Your task to perform on an android device: Open the phone app and click the voicemail tab. Image 0: 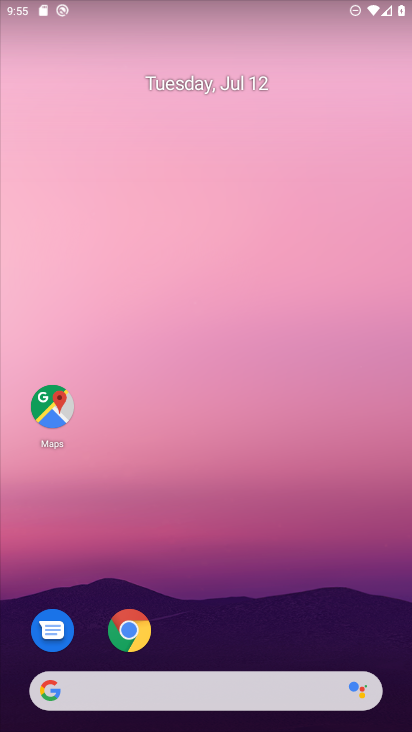
Step 0: drag from (197, 666) to (175, 285)
Your task to perform on an android device: Open the phone app and click the voicemail tab. Image 1: 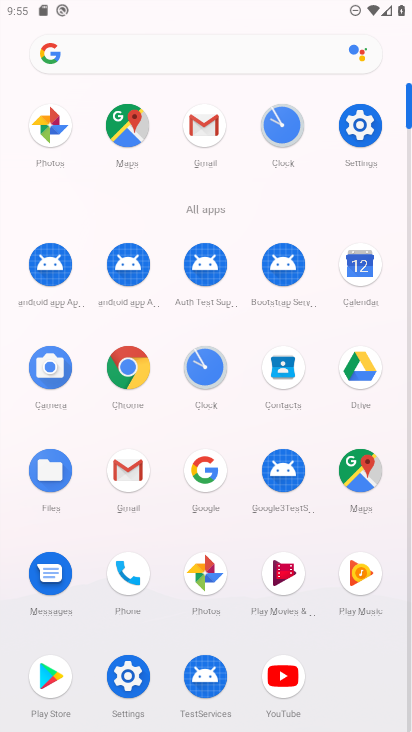
Step 1: click (128, 573)
Your task to perform on an android device: Open the phone app and click the voicemail tab. Image 2: 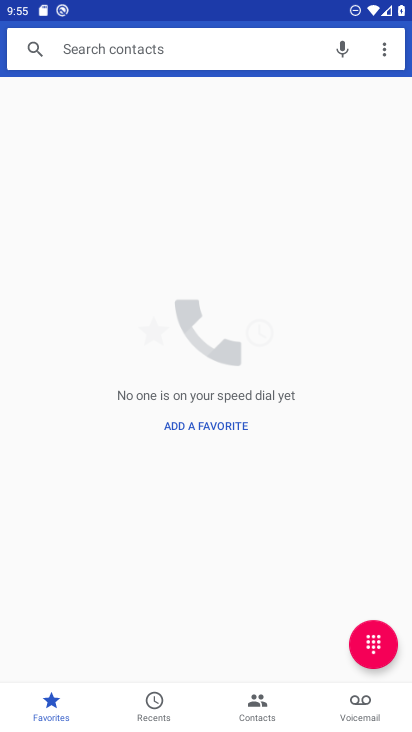
Step 2: click (351, 707)
Your task to perform on an android device: Open the phone app and click the voicemail tab. Image 3: 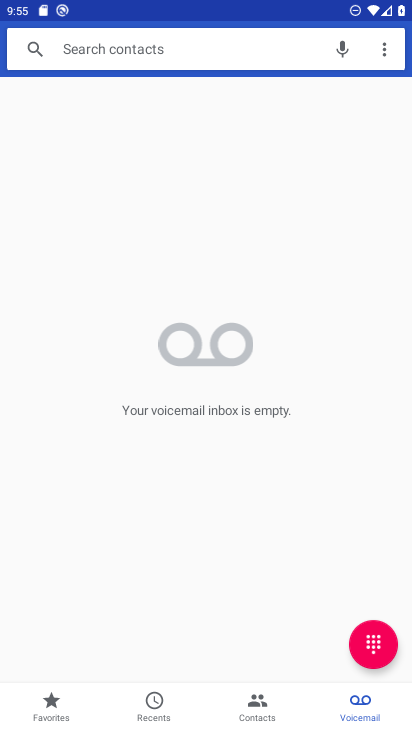
Step 3: task complete